Your task to perform on an android device: Open calendar and show me the second week of next month Image 0: 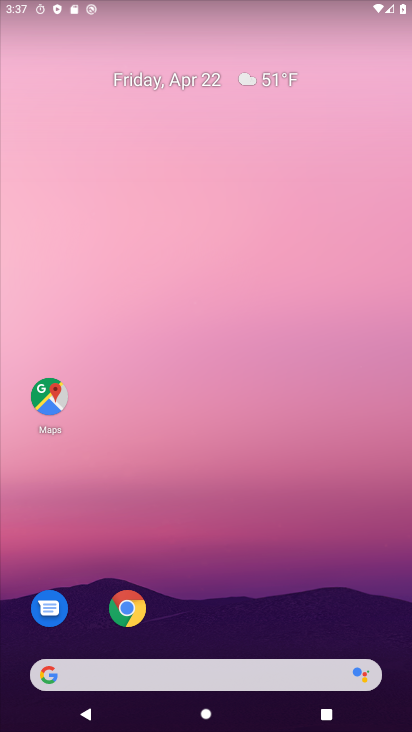
Step 0: drag from (265, 609) to (266, 54)
Your task to perform on an android device: Open calendar and show me the second week of next month Image 1: 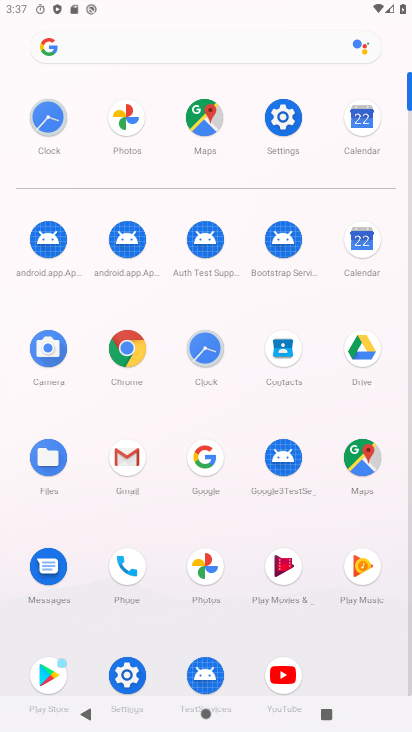
Step 1: click (368, 120)
Your task to perform on an android device: Open calendar and show me the second week of next month Image 2: 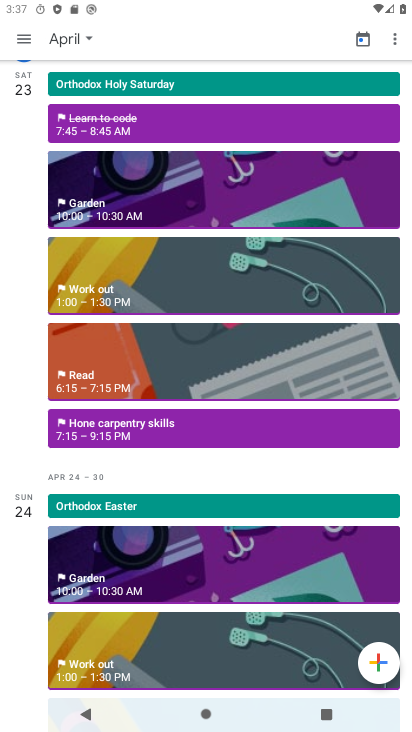
Step 2: click (25, 44)
Your task to perform on an android device: Open calendar and show me the second week of next month Image 3: 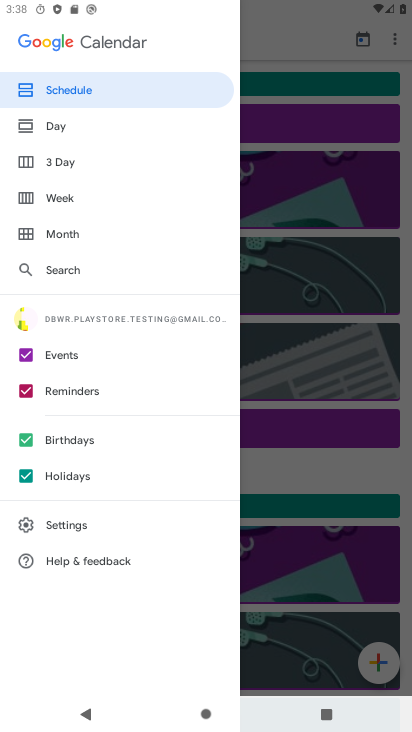
Step 3: click (69, 203)
Your task to perform on an android device: Open calendar and show me the second week of next month Image 4: 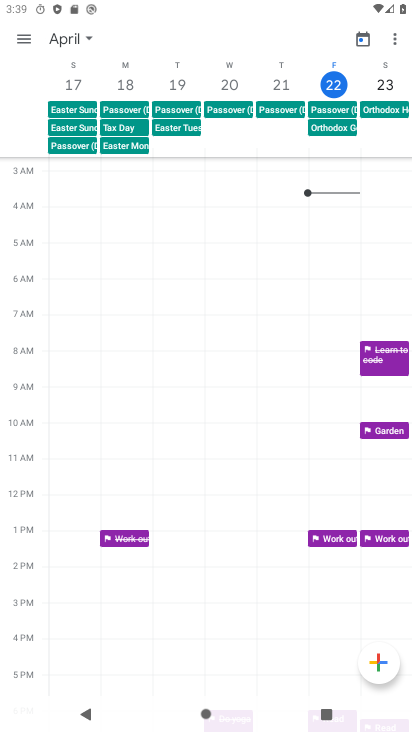
Step 4: click (86, 35)
Your task to perform on an android device: Open calendar and show me the second week of next month Image 5: 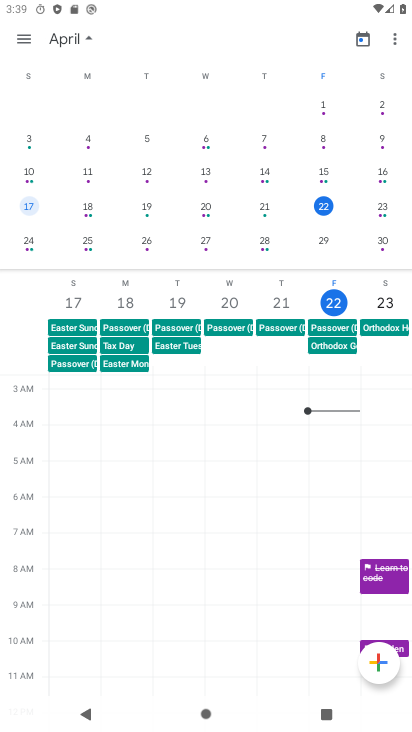
Step 5: drag from (263, 204) to (1, 187)
Your task to perform on an android device: Open calendar and show me the second week of next month Image 6: 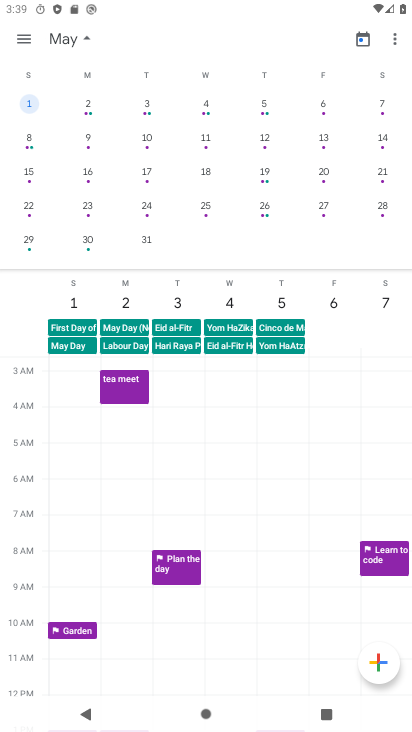
Step 6: click (31, 137)
Your task to perform on an android device: Open calendar and show me the second week of next month Image 7: 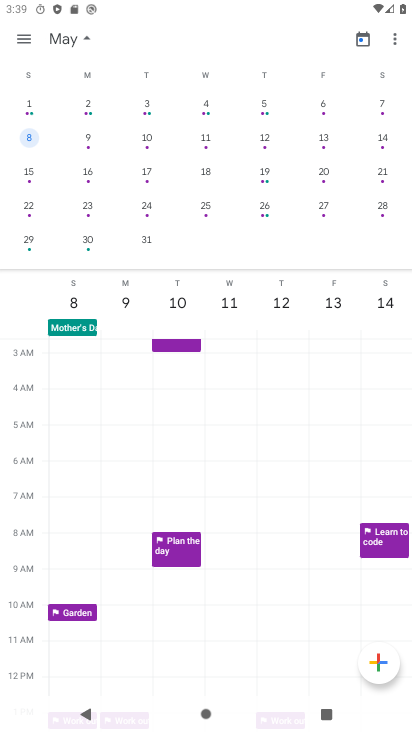
Step 7: task complete